Your task to perform on an android device: What's a good restaurant in Philadelphia? Image 0: 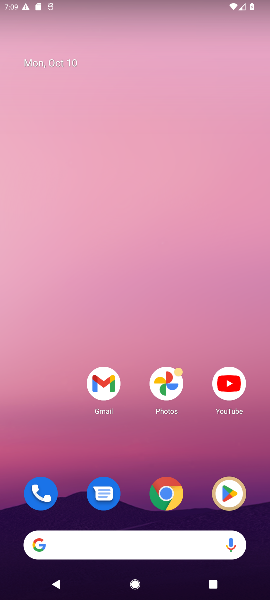
Step 0: drag from (129, 488) to (112, 543)
Your task to perform on an android device: What's a good restaurant in Philadelphia? Image 1: 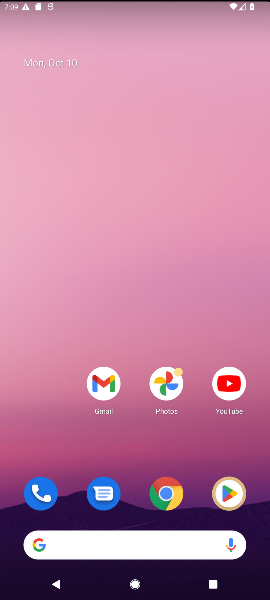
Step 1: click (112, 543)
Your task to perform on an android device: What's a good restaurant in Philadelphia? Image 2: 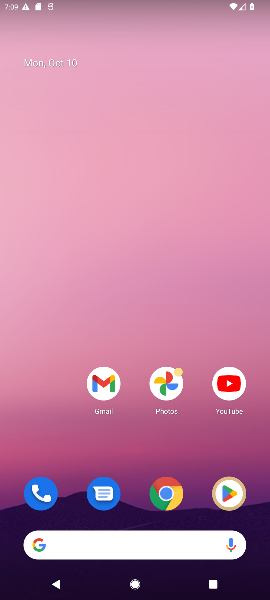
Step 2: click (112, 543)
Your task to perform on an android device: What's a good restaurant in Philadelphia? Image 3: 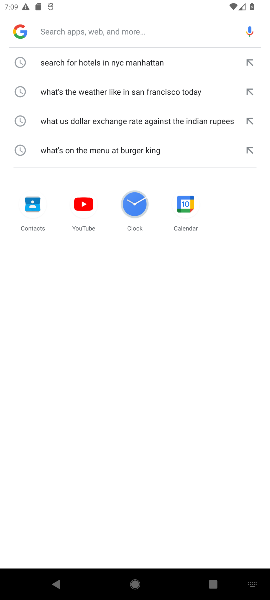
Step 3: type "What's a good restaurant in Philadelphia?"
Your task to perform on an android device: What's a good restaurant in Philadelphia? Image 4: 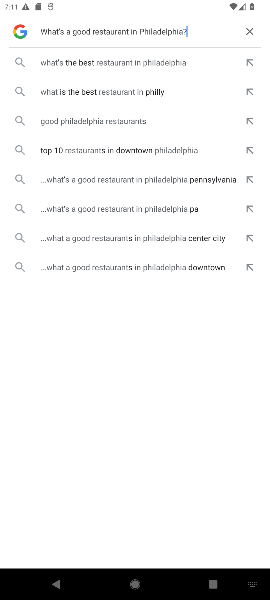
Step 4: click (178, 64)
Your task to perform on an android device: What's a good restaurant in Philadelphia? Image 5: 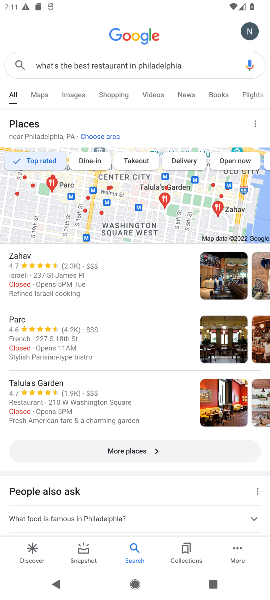
Step 5: task complete